Your task to perform on an android device: Open network settings Image 0: 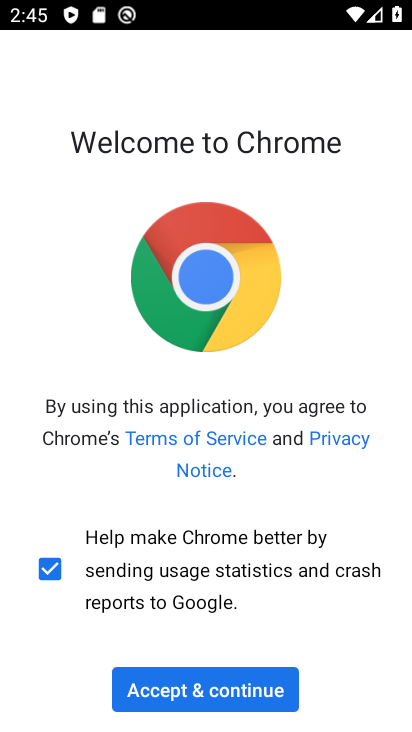
Step 0: press home button
Your task to perform on an android device: Open network settings Image 1: 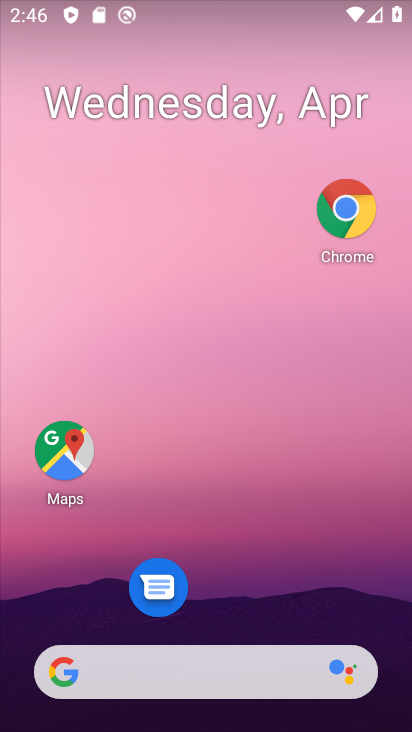
Step 1: drag from (225, 608) to (229, 6)
Your task to perform on an android device: Open network settings Image 2: 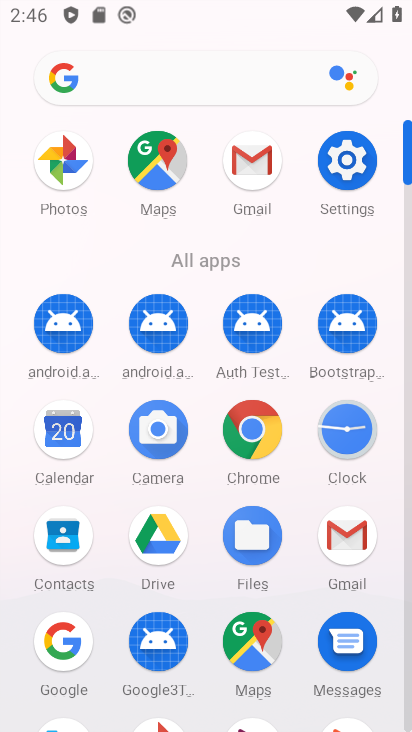
Step 2: click (341, 160)
Your task to perform on an android device: Open network settings Image 3: 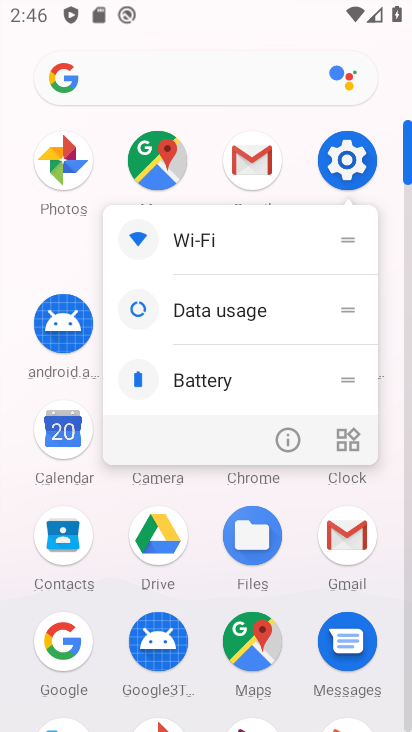
Step 3: click (341, 160)
Your task to perform on an android device: Open network settings Image 4: 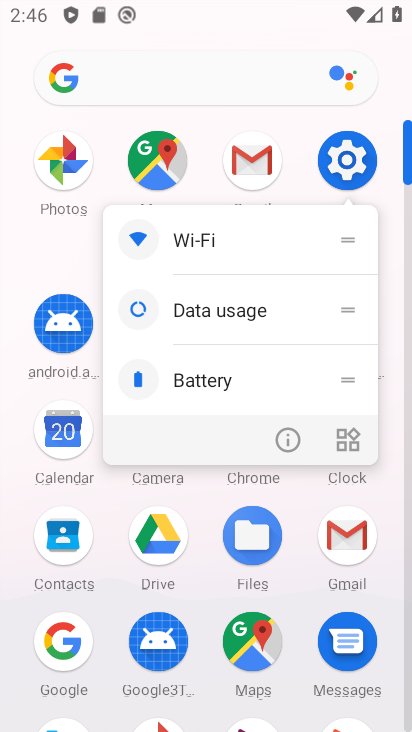
Step 4: click (341, 160)
Your task to perform on an android device: Open network settings Image 5: 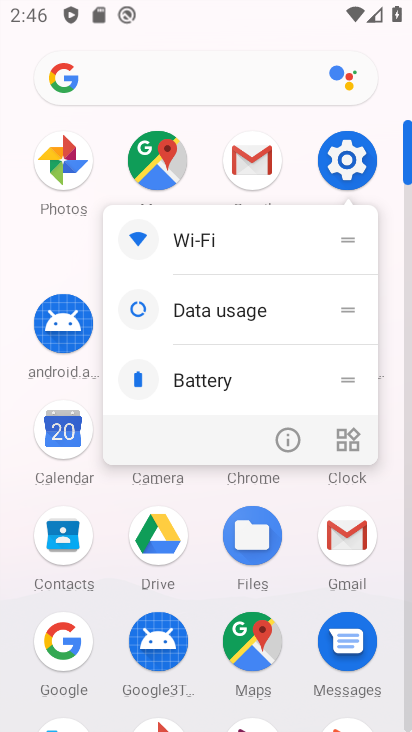
Step 5: click (351, 165)
Your task to perform on an android device: Open network settings Image 6: 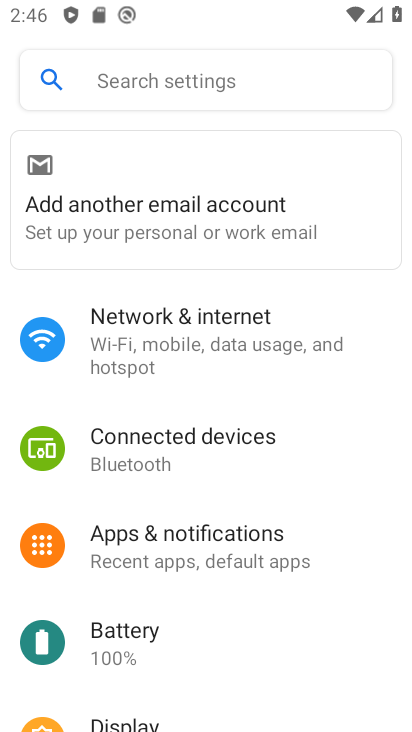
Step 6: click (166, 318)
Your task to perform on an android device: Open network settings Image 7: 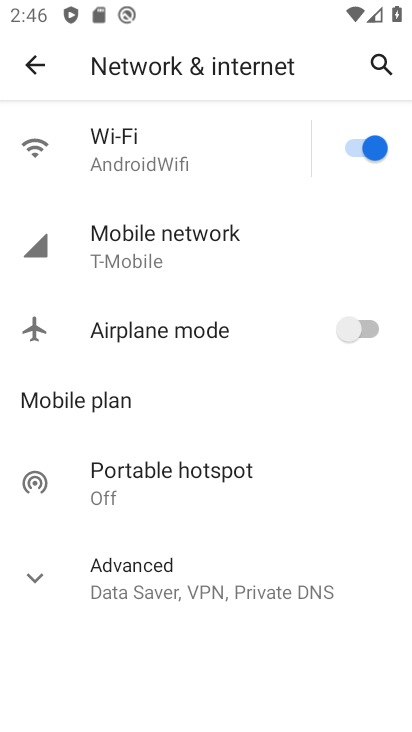
Step 7: task complete